Your task to perform on an android device: toggle pop-ups in chrome Image 0: 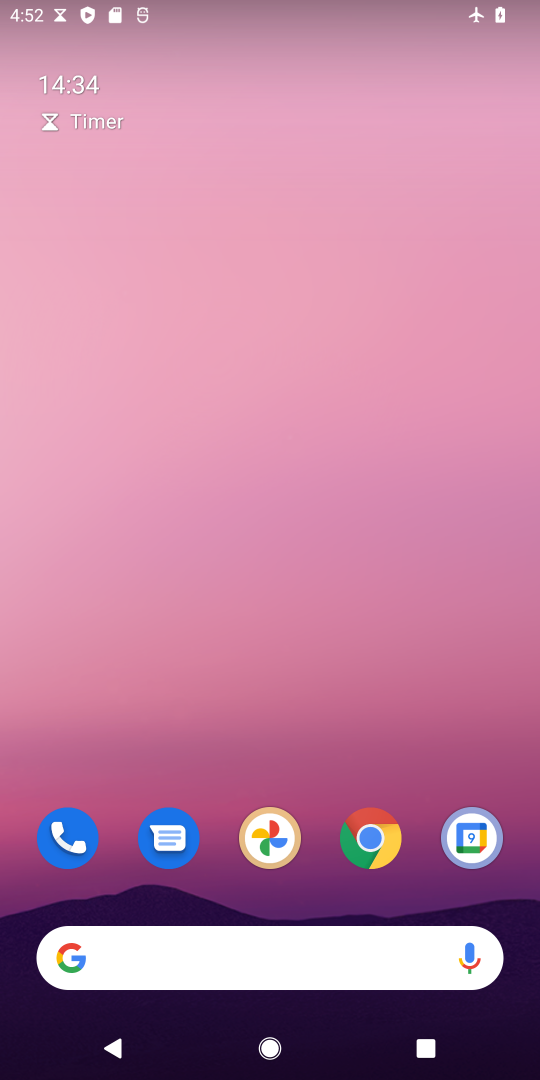
Step 0: drag from (313, 793) to (169, 35)
Your task to perform on an android device: toggle pop-ups in chrome Image 1: 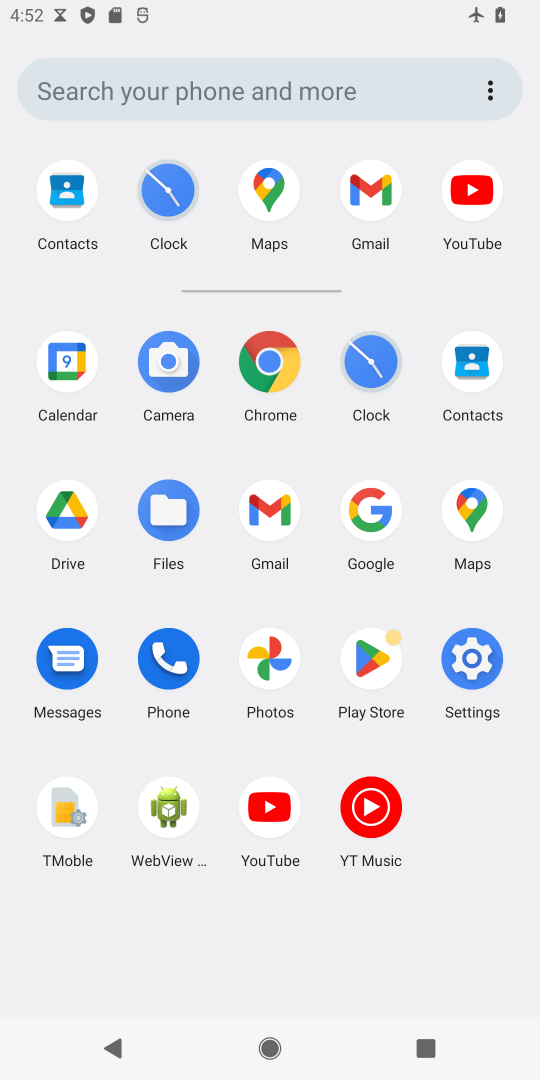
Step 1: click (293, 378)
Your task to perform on an android device: toggle pop-ups in chrome Image 2: 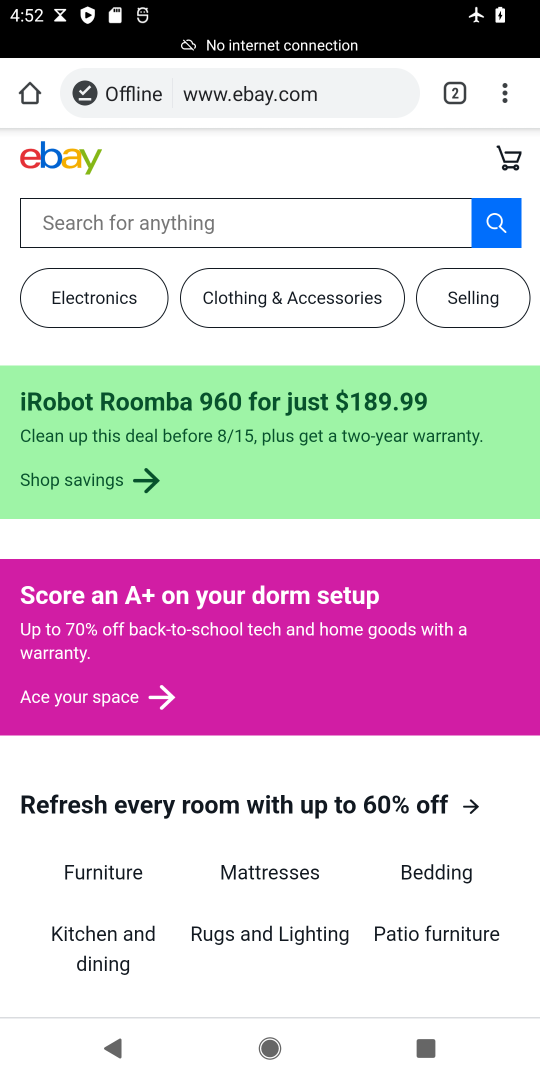
Step 2: click (507, 108)
Your task to perform on an android device: toggle pop-ups in chrome Image 3: 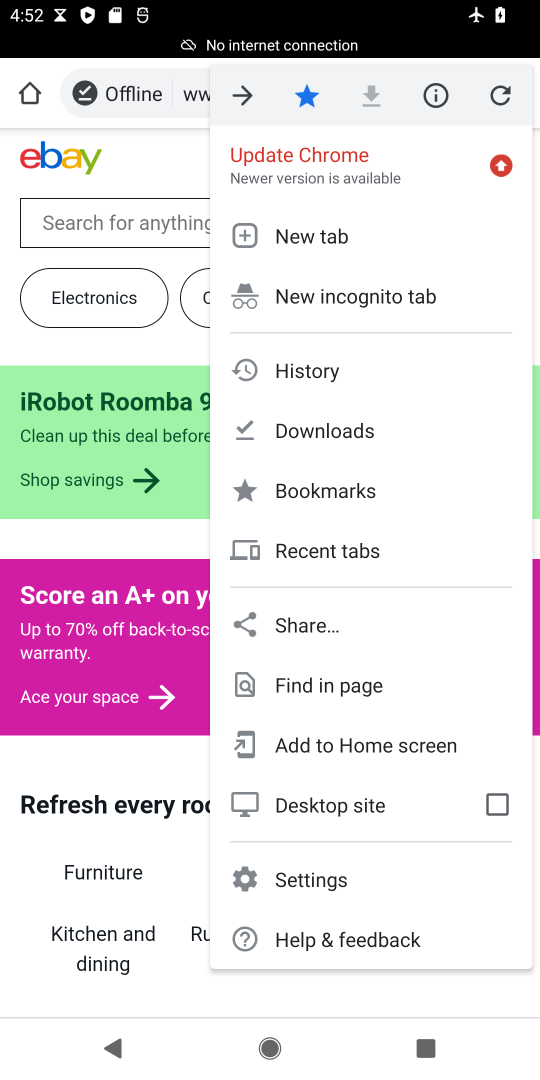
Step 3: click (366, 868)
Your task to perform on an android device: toggle pop-ups in chrome Image 4: 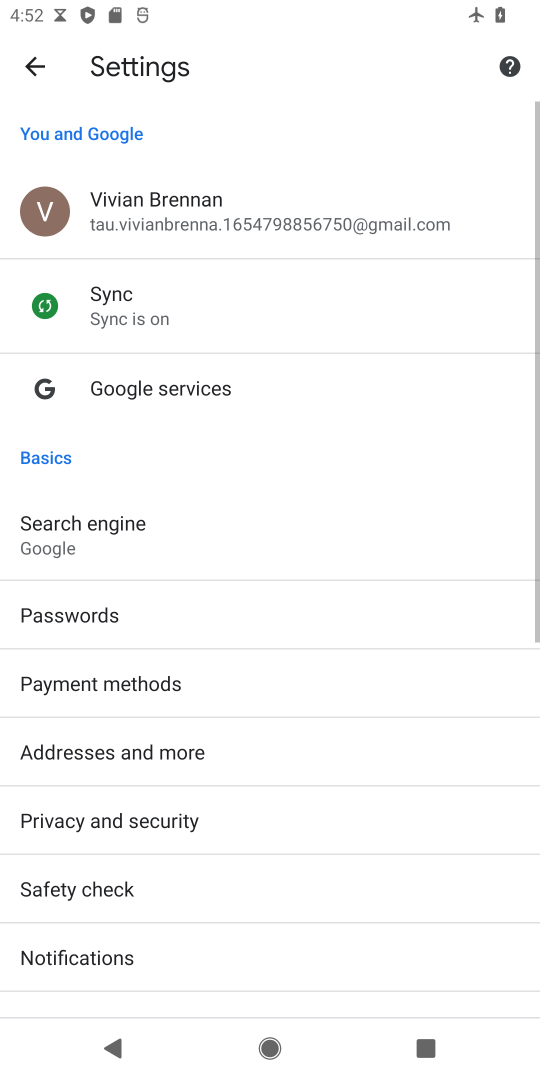
Step 4: drag from (351, 958) to (311, 415)
Your task to perform on an android device: toggle pop-ups in chrome Image 5: 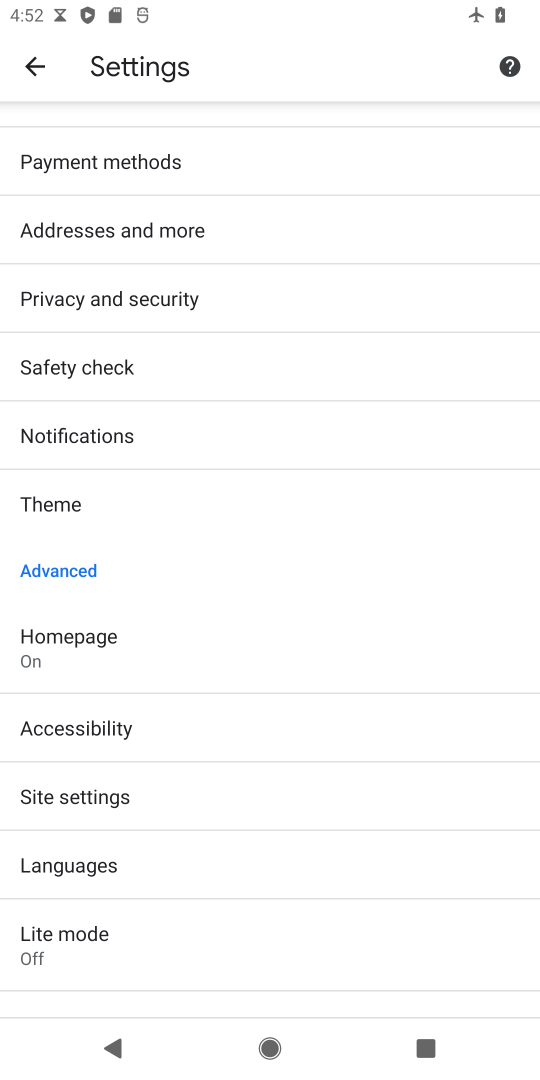
Step 5: drag from (299, 908) to (262, 427)
Your task to perform on an android device: toggle pop-ups in chrome Image 6: 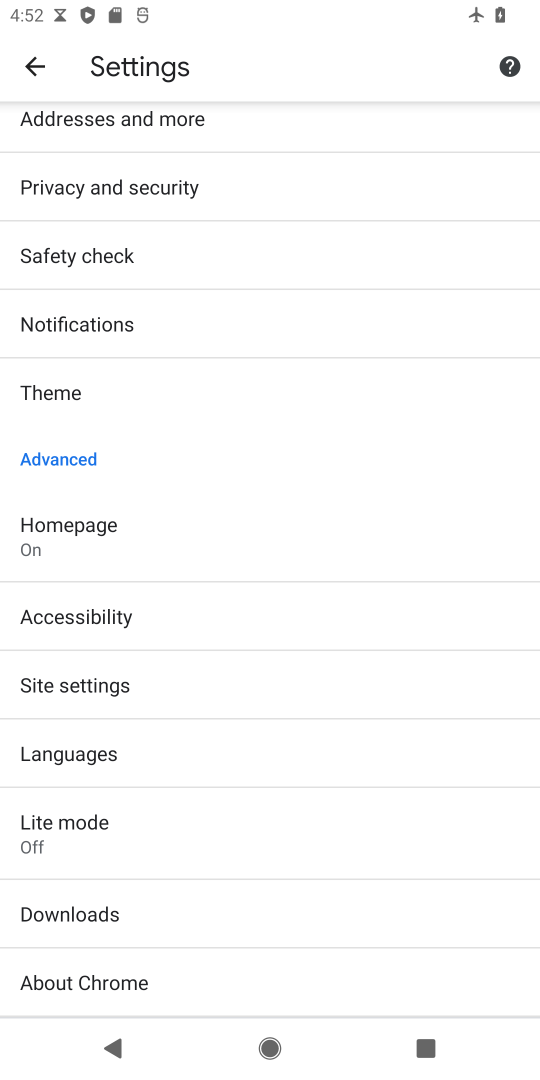
Step 6: click (281, 680)
Your task to perform on an android device: toggle pop-ups in chrome Image 7: 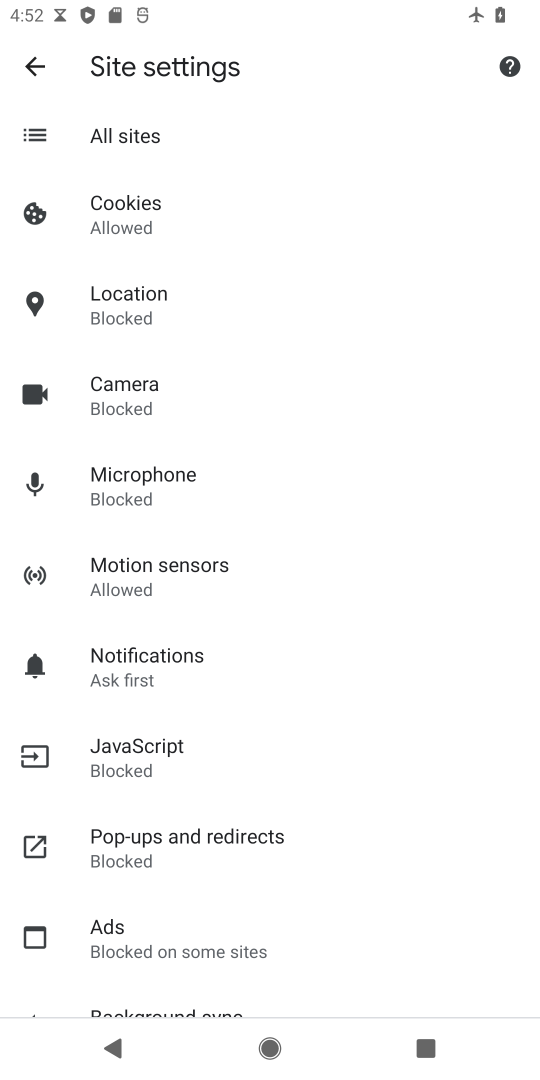
Step 7: click (260, 849)
Your task to perform on an android device: toggle pop-ups in chrome Image 8: 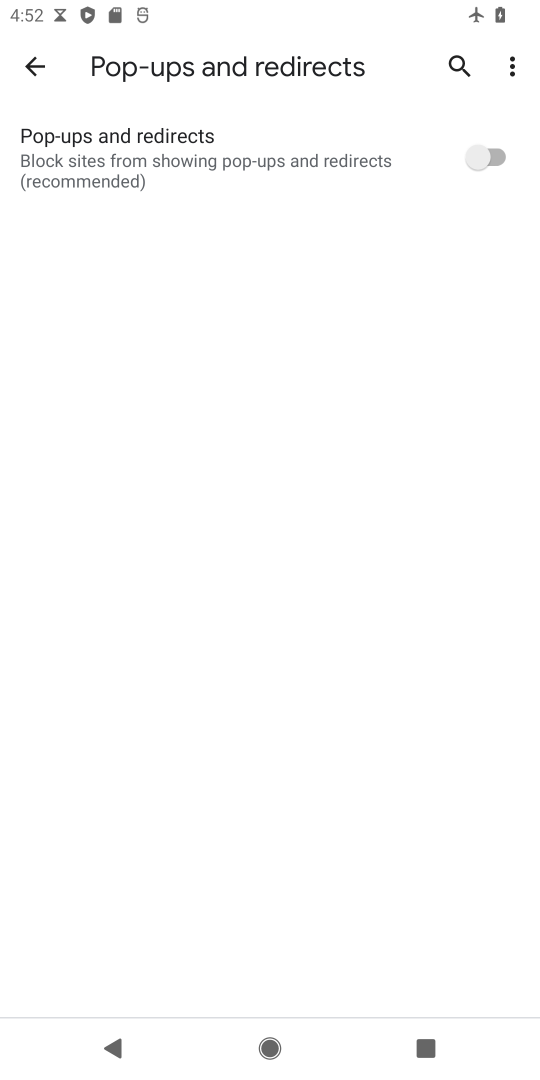
Step 8: click (489, 157)
Your task to perform on an android device: toggle pop-ups in chrome Image 9: 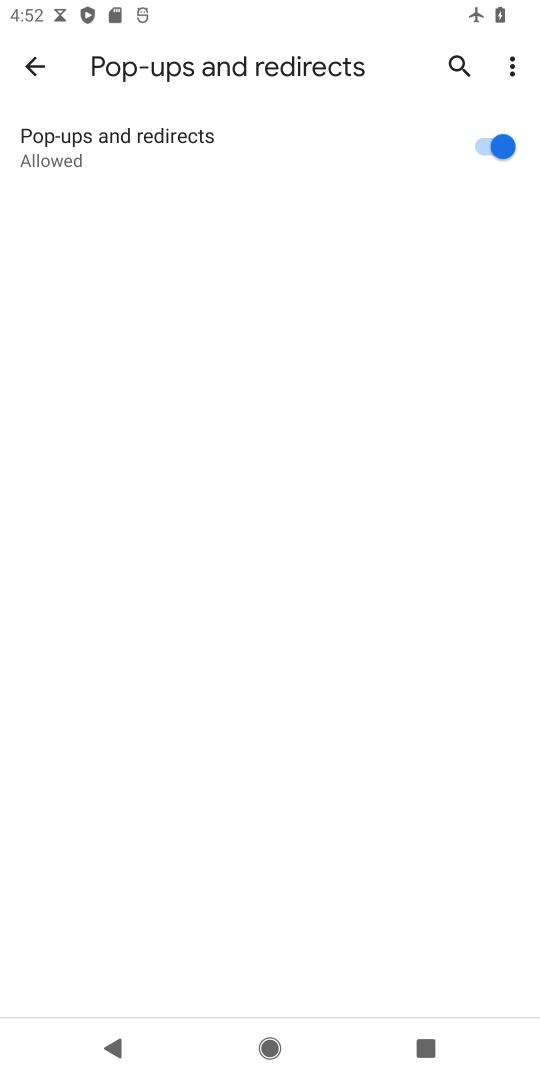
Step 9: task complete